Your task to perform on an android device: Open Google Chrome and click the shortcut for Amazon.com Image 0: 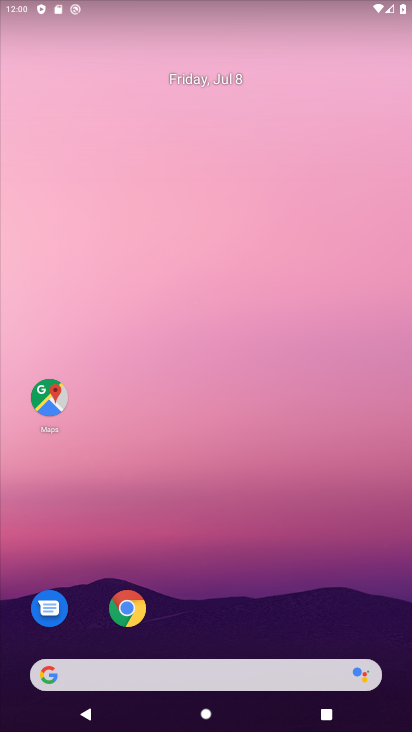
Step 0: click (121, 616)
Your task to perform on an android device: Open Google Chrome and click the shortcut for Amazon.com Image 1: 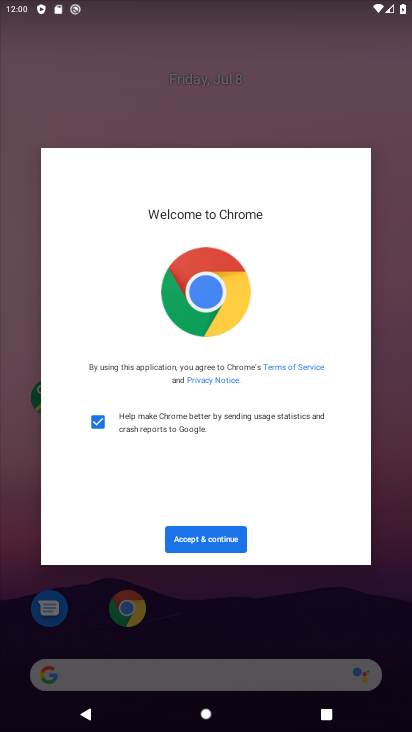
Step 1: click (180, 542)
Your task to perform on an android device: Open Google Chrome and click the shortcut for Amazon.com Image 2: 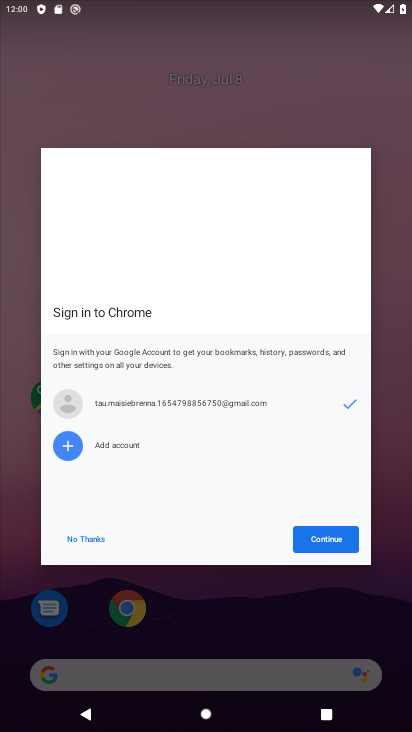
Step 2: click (301, 545)
Your task to perform on an android device: Open Google Chrome and click the shortcut for Amazon.com Image 3: 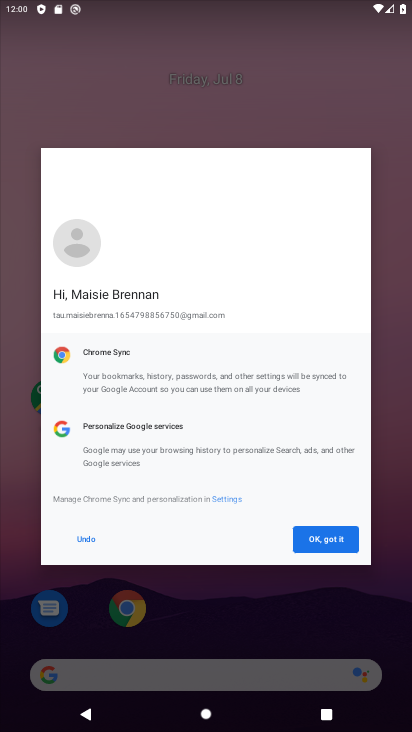
Step 3: click (315, 538)
Your task to perform on an android device: Open Google Chrome and click the shortcut for Amazon.com Image 4: 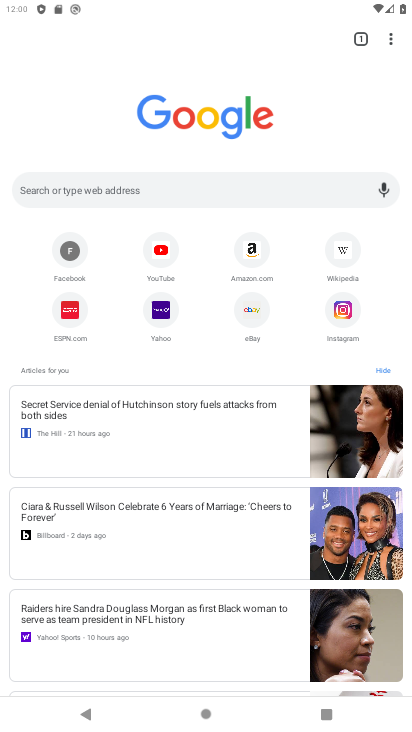
Step 4: click (251, 243)
Your task to perform on an android device: Open Google Chrome and click the shortcut for Amazon.com Image 5: 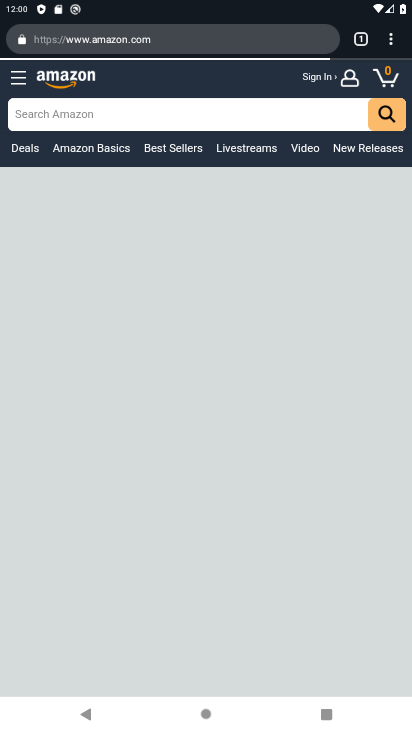
Step 5: task complete